Your task to perform on an android device: turn off airplane mode Image 0: 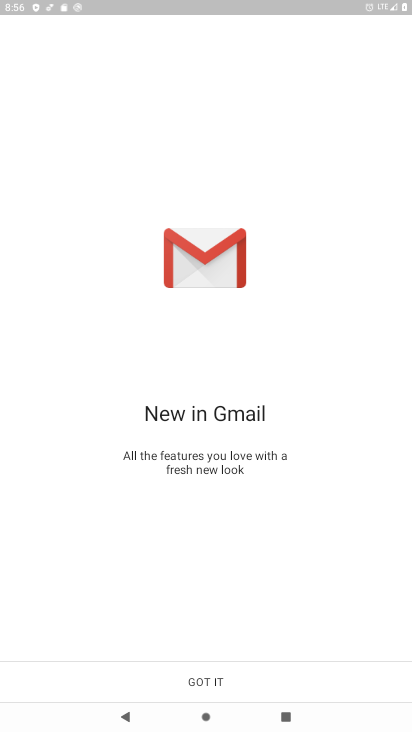
Step 0: press home button
Your task to perform on an android device: turn off airplane mode Image 1: 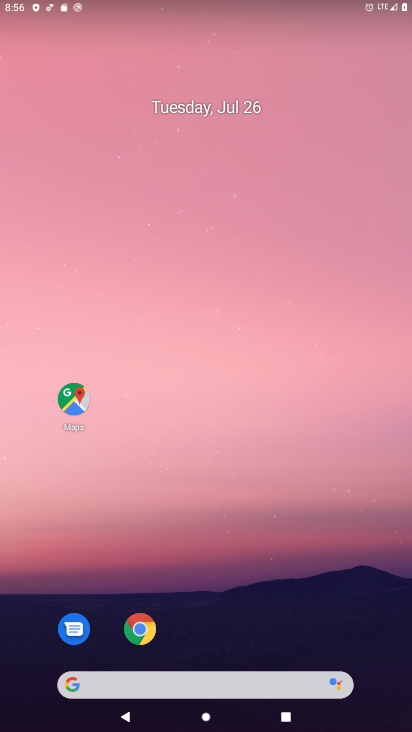
Step 1: drag from (250, 664) to (193, 8)
Your task to perform on an android device: turn off airplane mode Image 2: 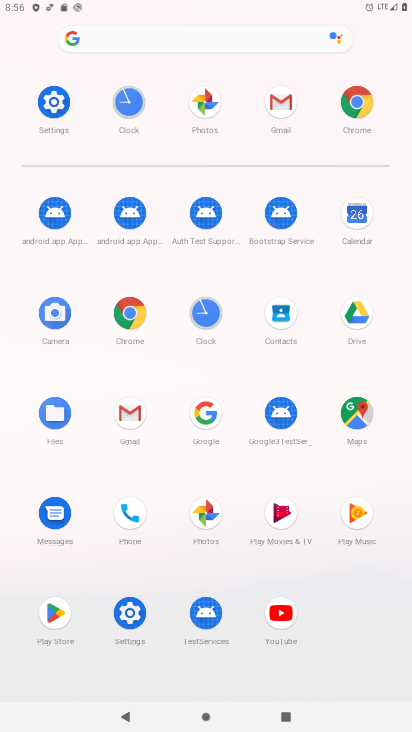
Step 2: click (56, 106)
Your task to perform on an android device: turn off airplane mode Image 3: 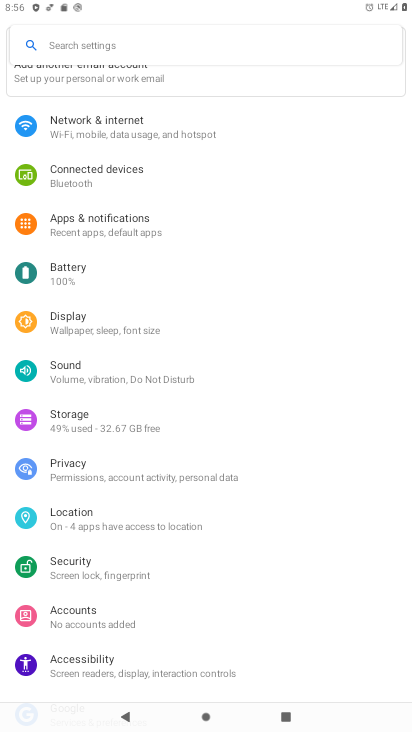
Step 3: click (109, 127)
Your task to perform on an android device: turn off airplane mode Image 4: 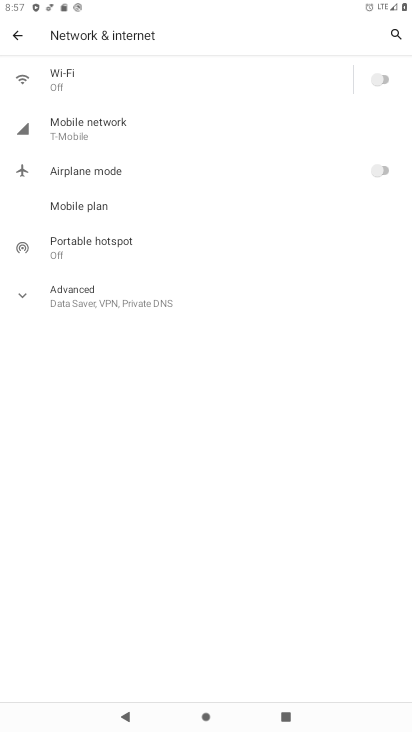
Step 4: task complete